Your task to perform on an android device: choose inbox layout in the gmail app Image 0: 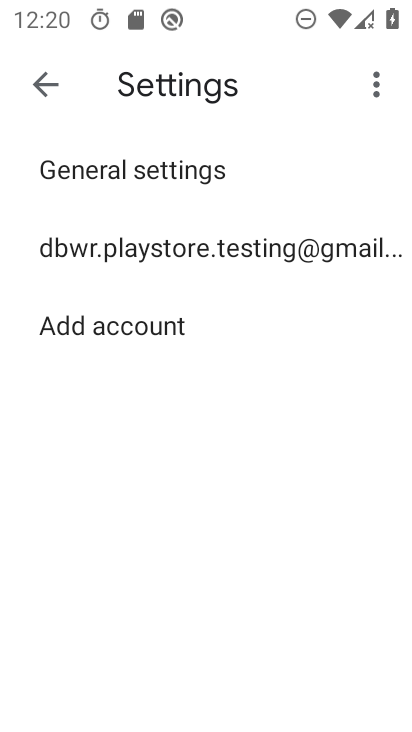
Step 0: press home button
Your task to perform on an android device: choose inbox layout in the gmail app Image 1: 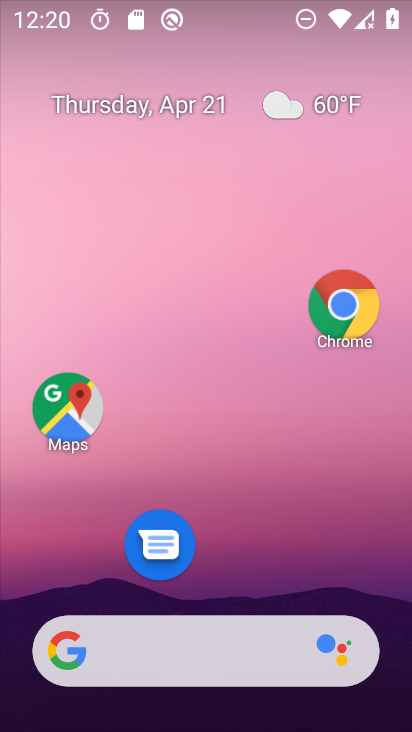
Step 1: drag from (283, 552) to (315, 145)
Your task to perform on an android device: choose inbox layout in the gmail app Image 2: 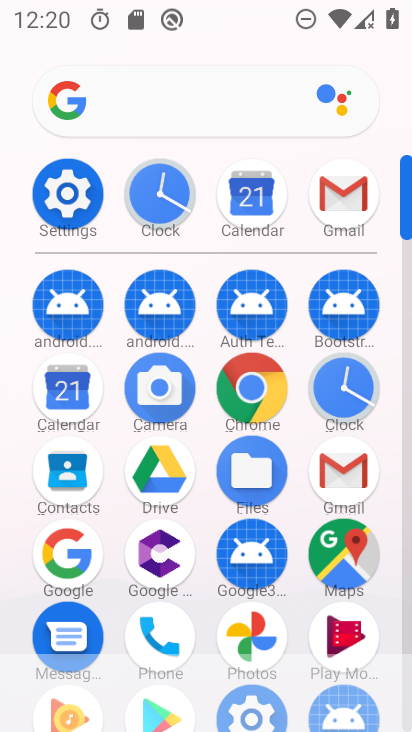
Step 2: click (364, 473)
Your task to perform on an android device: choose inbox layout in the gmail app Image 3: 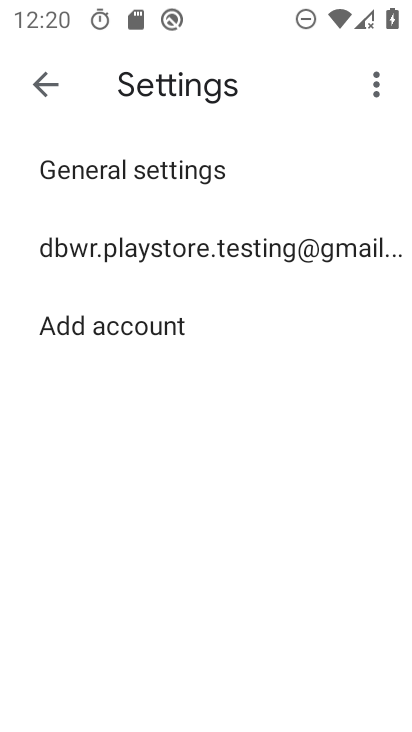
Step 3: click (153, 175)
Your task to perform on an android device: choose inbox layout in the gmail app Image 4: 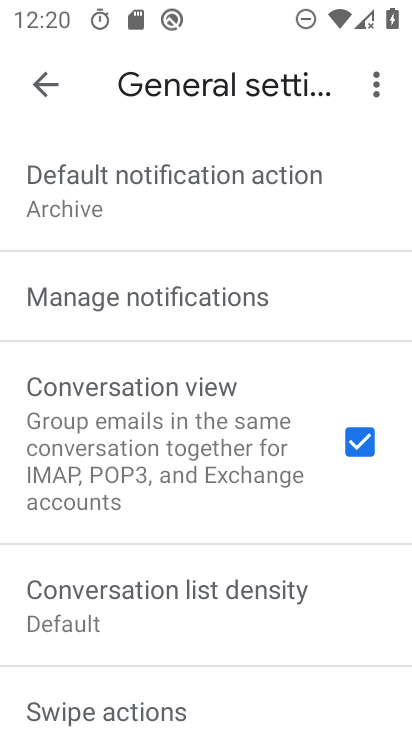
Step 4: task complete